Your task to perform on an android device: Open the web browser Image 0: 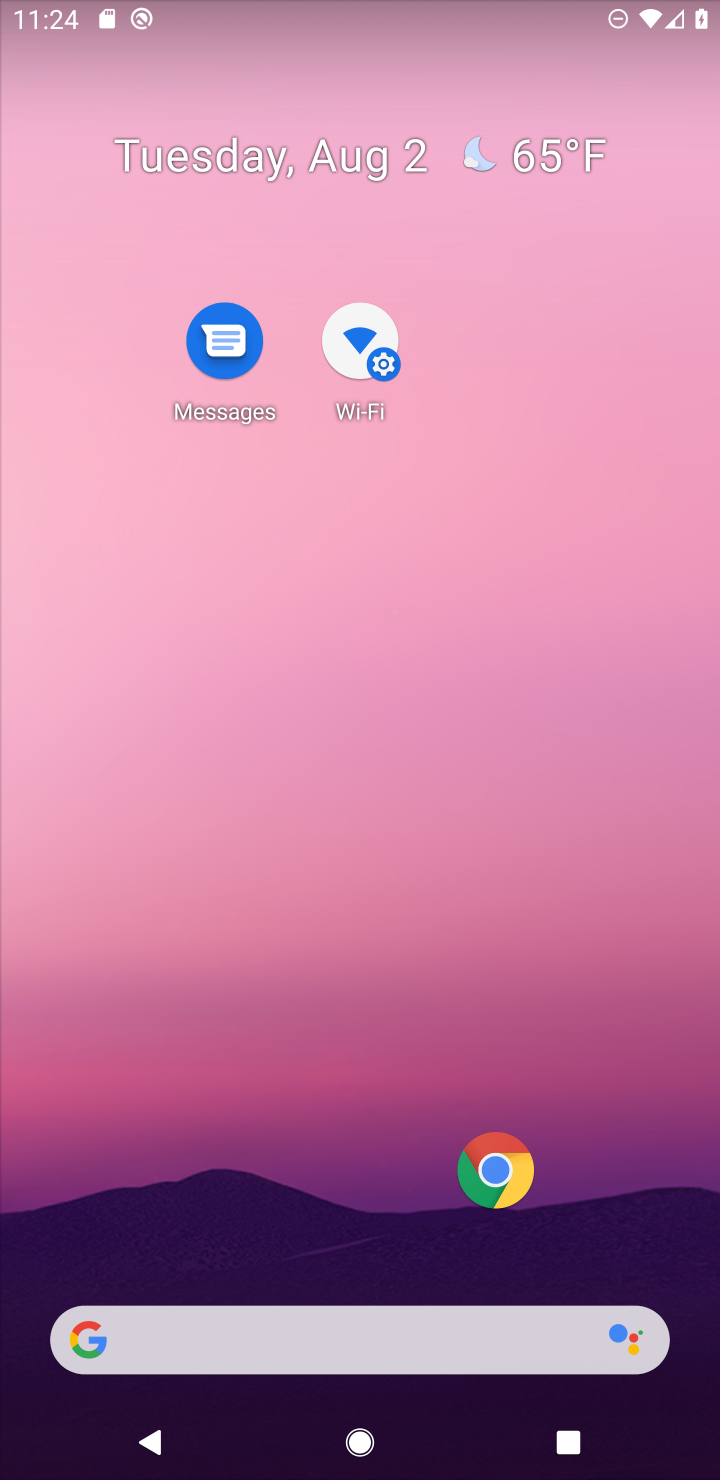
Step 0: drag from (347, 1235) to (301, 270)
Your task to perform on an android device: Open the web browser Image 1: 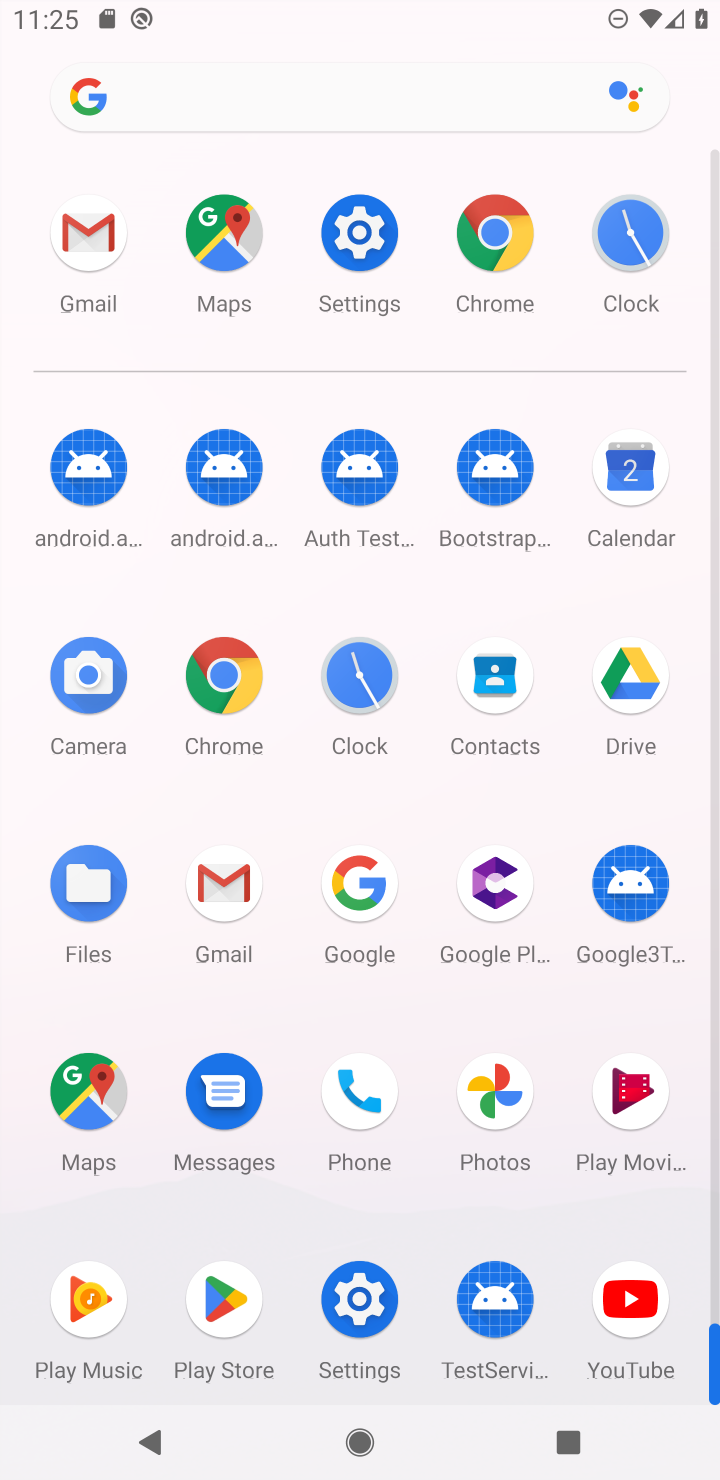
Step 1: click (204, 679)
Your task to perform on an android device: Open the web browser Image 2: 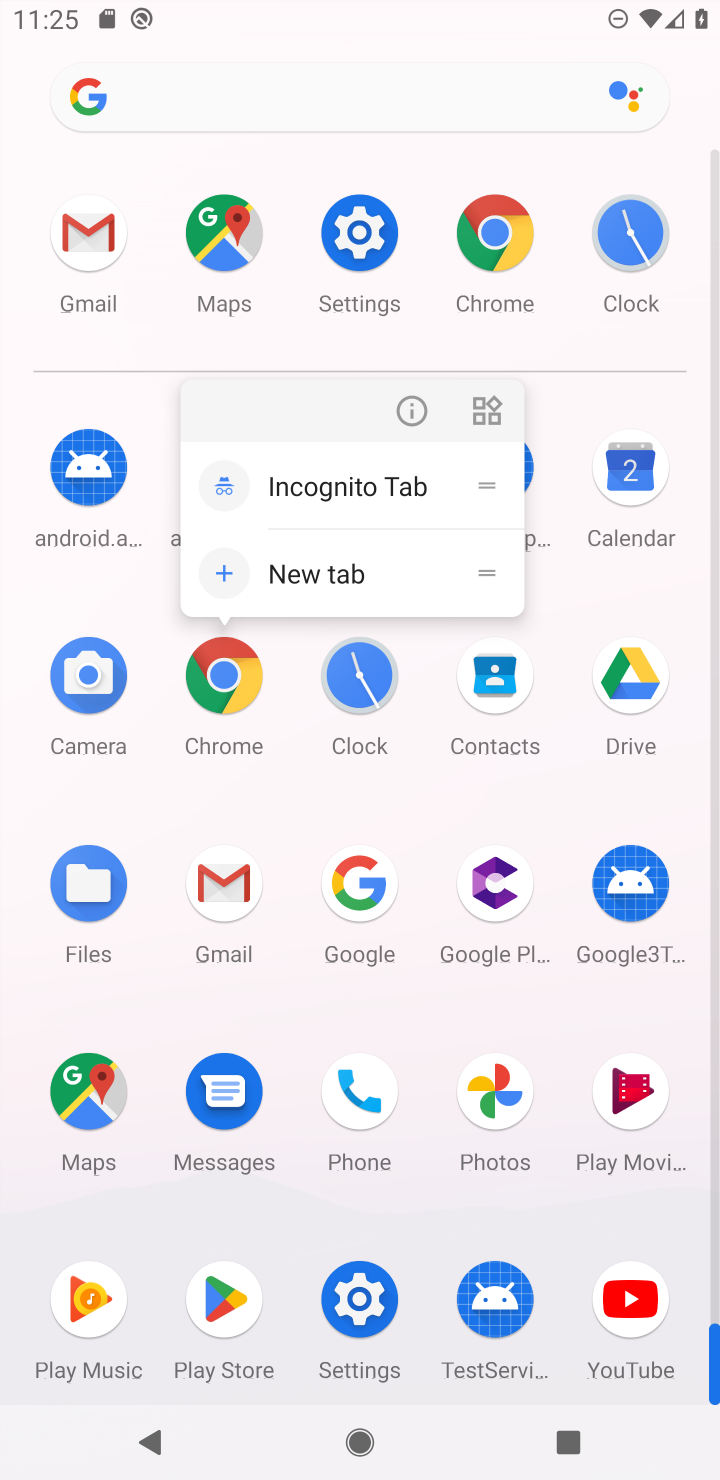
Step 2: click (403, 402)
Your task to perform on an android device: Open the web browser Image 3: 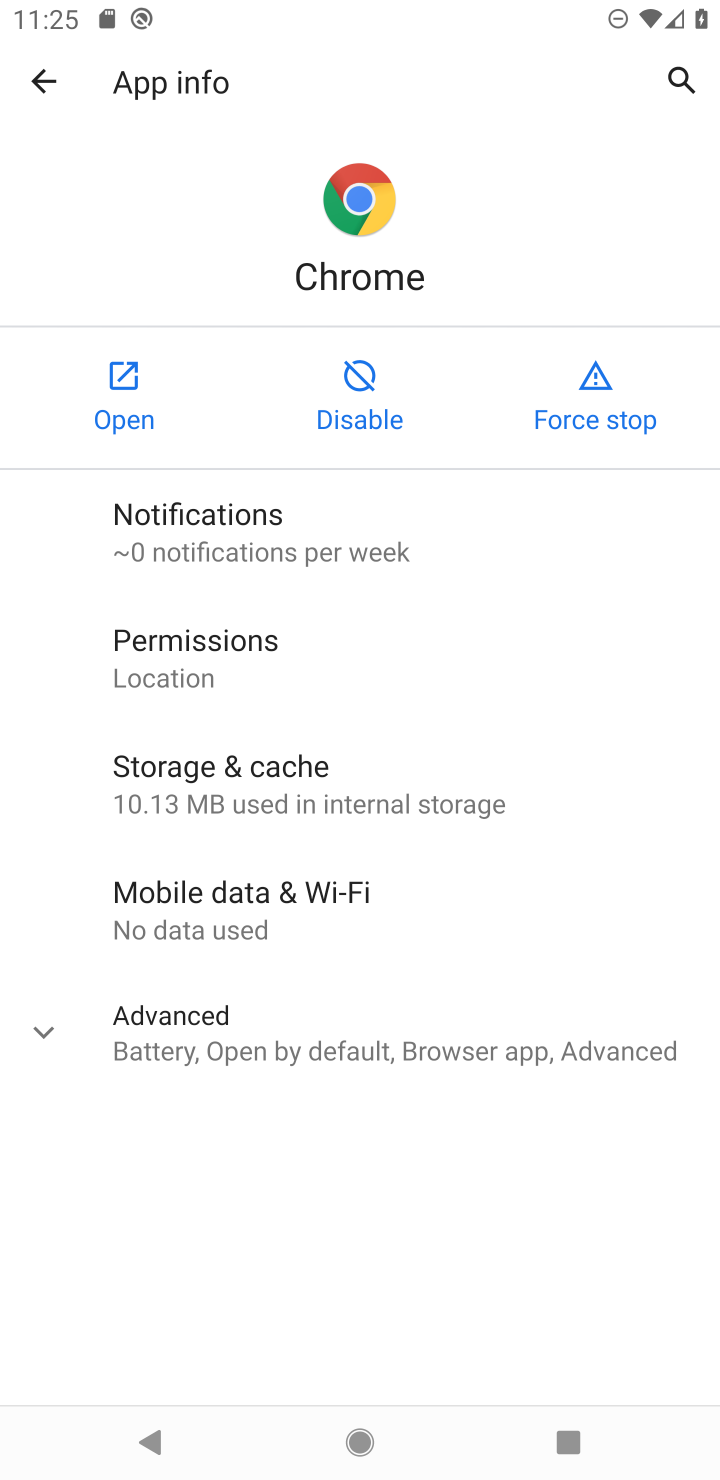
Step 3: click (112, 400)
Your task to perform on an android device: Open the web browser Image 4: 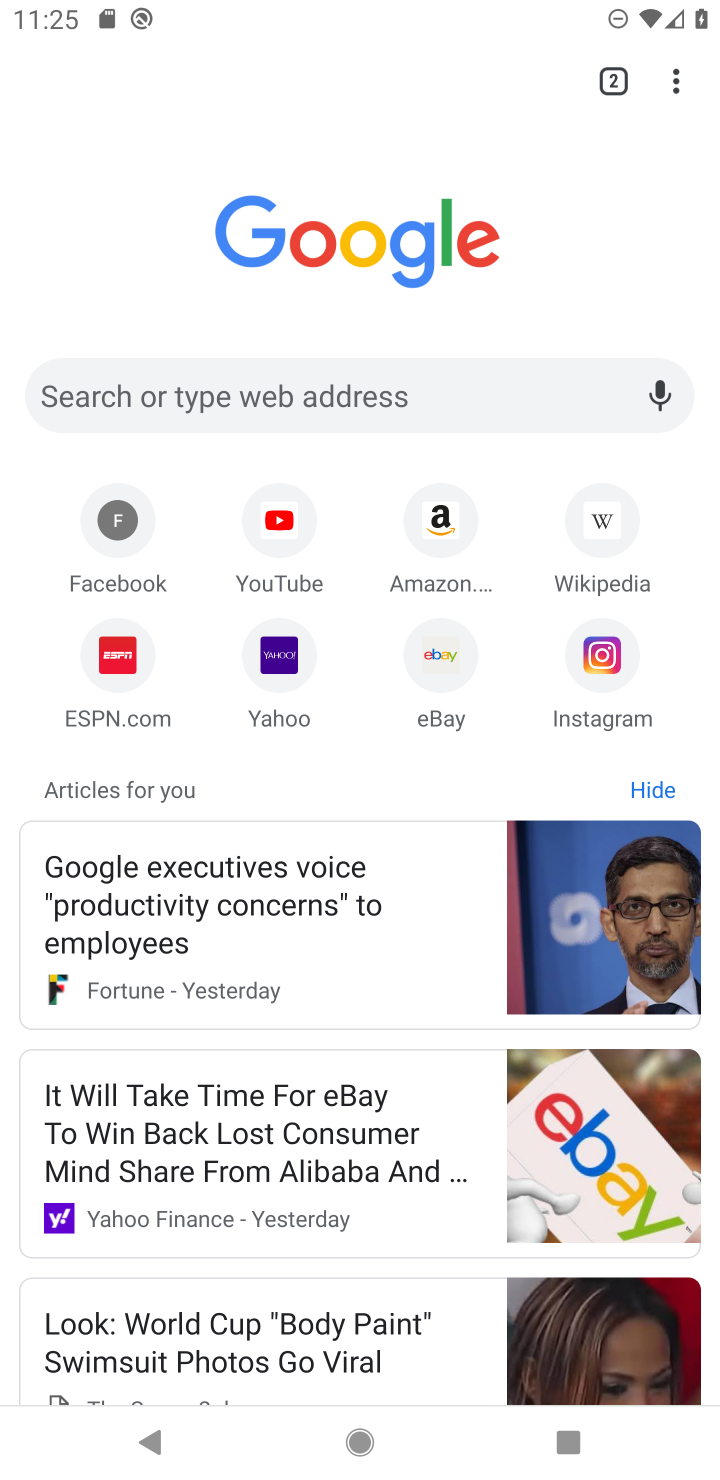
Step 4: task complete